Your task to perform on an android device: turn off airplane mode Image 0: 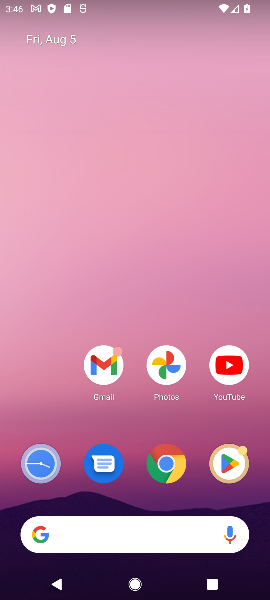
Step 0: drag from (131, 502) to (139, 155)
Your task to perform on an android device: turn off airplane mode Image 1: 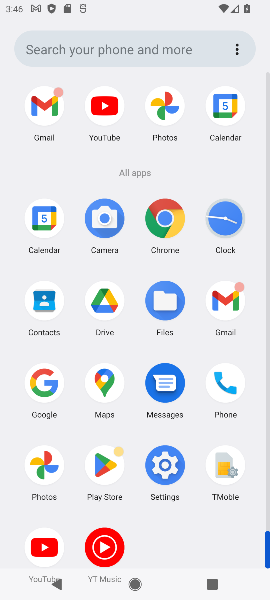
Step 1: click (202, 153)
Your task to perform on an android device: turn off airplane mode Image 2: 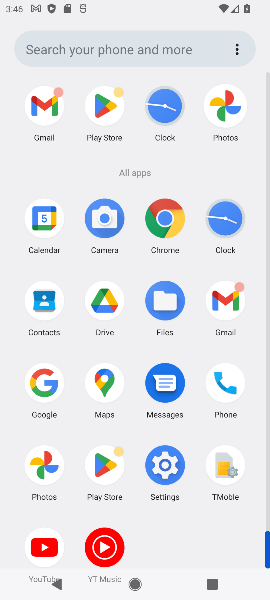
Step 2: click (168, 456)
Your task to perform on an android device: turn off airplane mode Image 3: 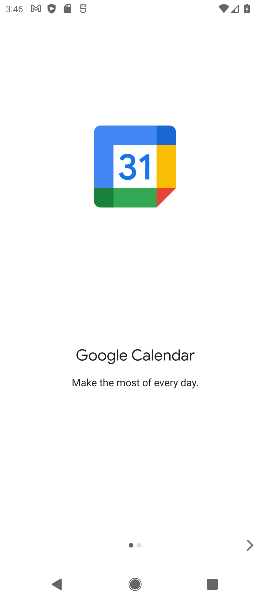
Step 3: click (250, 544)
Your task to perform on an android device: turn off airplane mode Image 4: 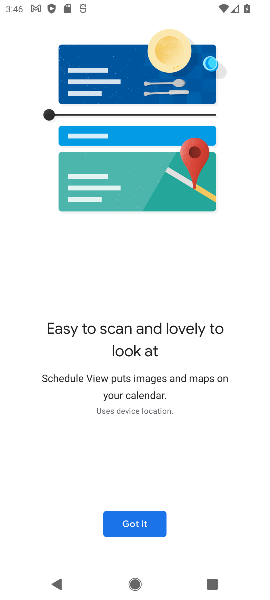
Step 4: press home button
Your task to perform on an android device: turn off airplane mode Image 5: 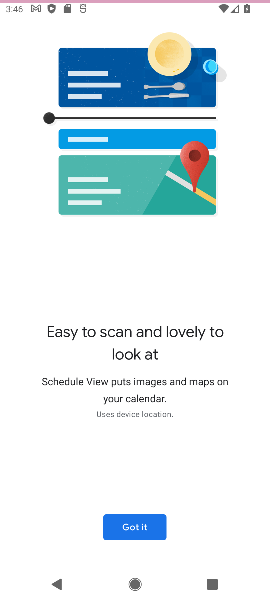
Step 5: drag from (110, 476) to (132, 80)
Your task to perform on an android device: turn off airplane mode Image 6: 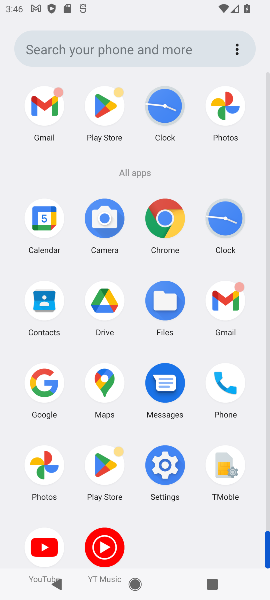
Step 6: click (154, 468)
Your task to perform on an android device: turn off airplane mode Image 7: 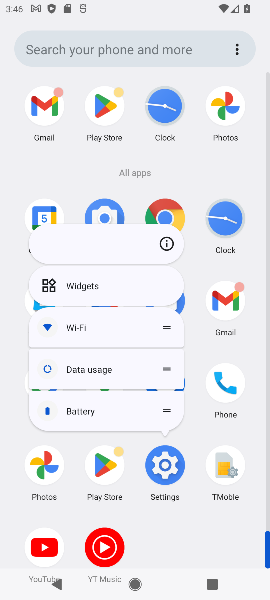
Step 7: click (173, 241)
Your task to perform on an android device: turn off airplane mode Image 8: 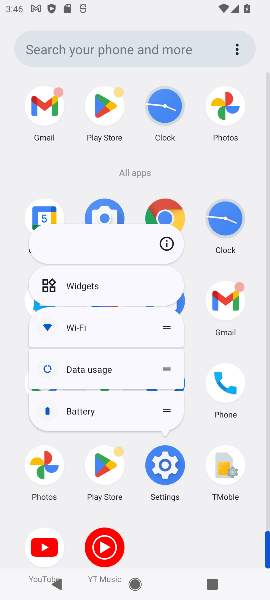
Step 8: click (167, 246)
Your task to perform on an android device: turn off airplane mode Image 9: 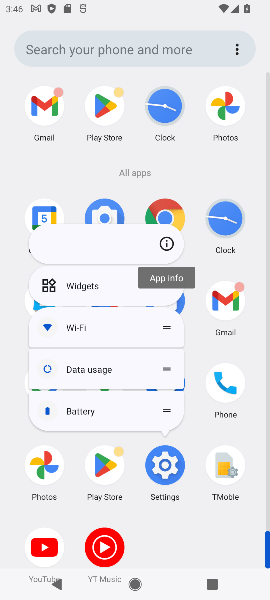
Step 9: click (165, 245)
Your task to perform on an android device: turn off airplane mode Image 10: 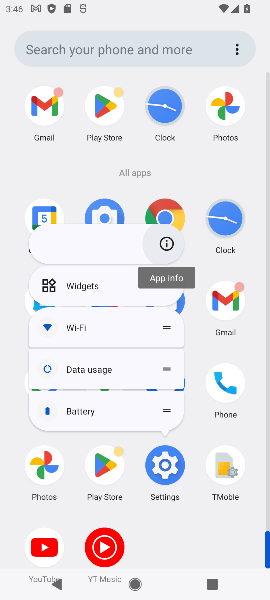
Step 10: click (162, 241)
Your task to perform on an android device: turn off airplane mode Image 11: 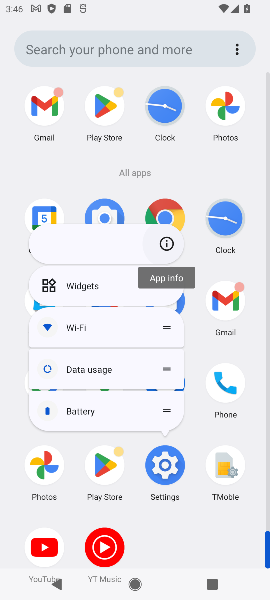
Step 11: click (165, 236)
Your task to perform on an android device: turn off airplane mode Image 12: 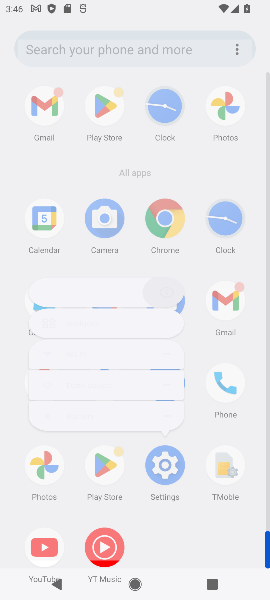
Step 12: click (165, 236)
Your task to perform on an android device: turn off airplane mode Image 13: 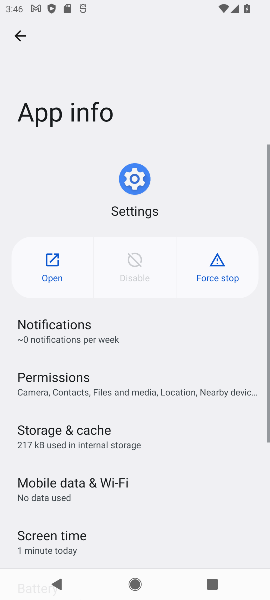
Step 13: click (41, 270)
Your task to perform on an android device: turn off airplane mode Image 14: 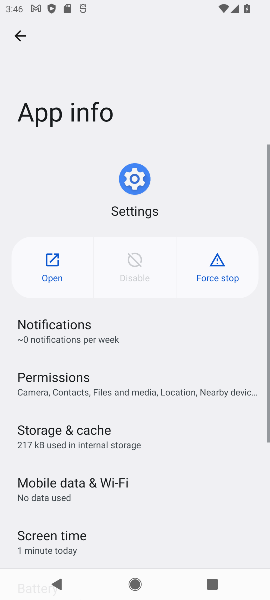
Step 14: click (42, 269)
Your task to perform on an android device: turn off airplane mode Image 15: 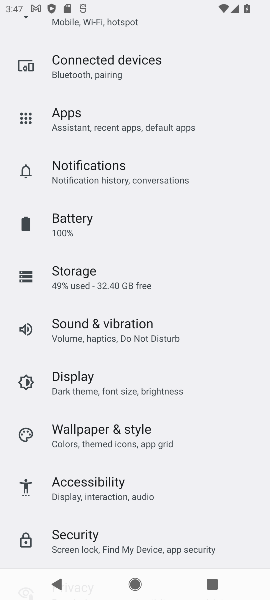
Step 15: drag from (120, 91) to (202, 592)
Your task to perform on an android device: turn off airplane mode Image 16: 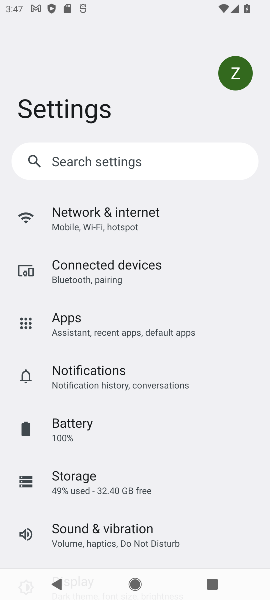
Step 16: click (110, 212)
Your task to perform on an android device: turn off airplane mode Image 17: 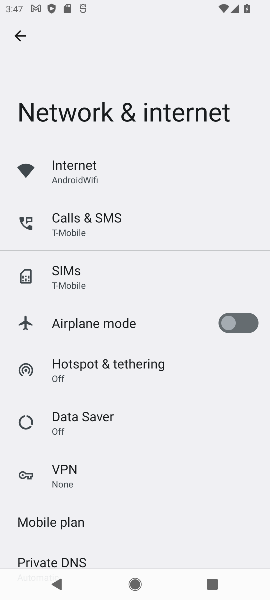
Step 17: task complete